Your task to perform on an android device: toggle notification dots Image 0: 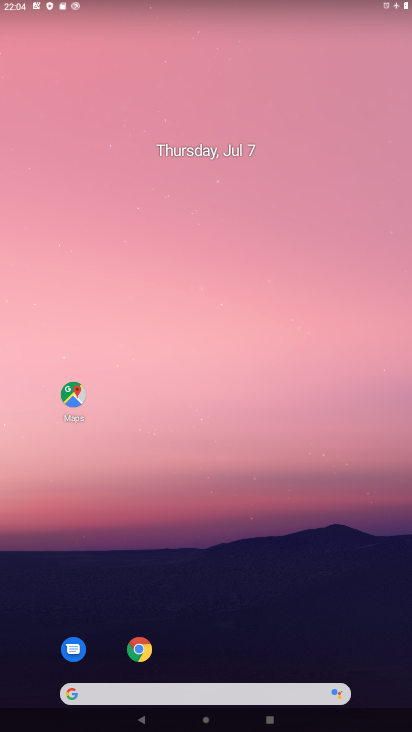
Step 0: drag from (226, 720) to (226, 241)
Your task to perform on an android device: toggle notification dots Image 1: 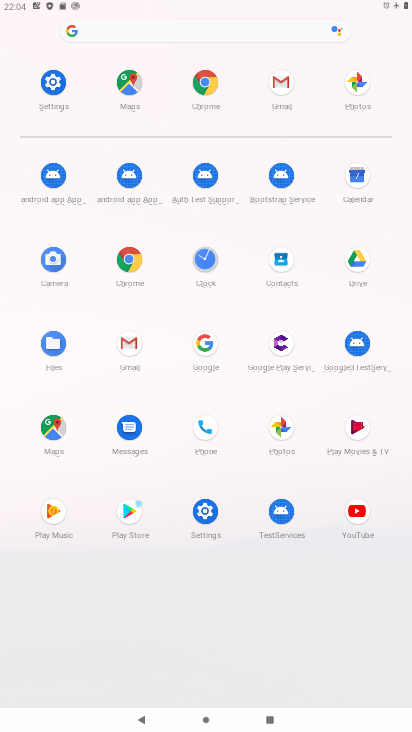
Step 1: click (54, 73)
Your task to perform on an android device: toggle notification dots Image 2: 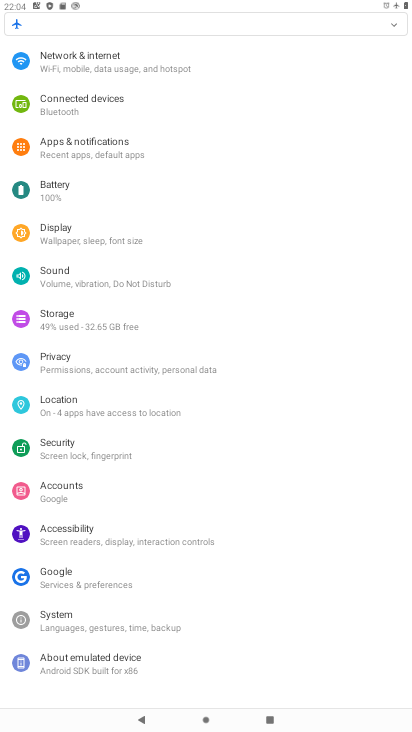
Step 2: click (80, 149)
Your task to perform on an android device: toggle notification dots Image 3: 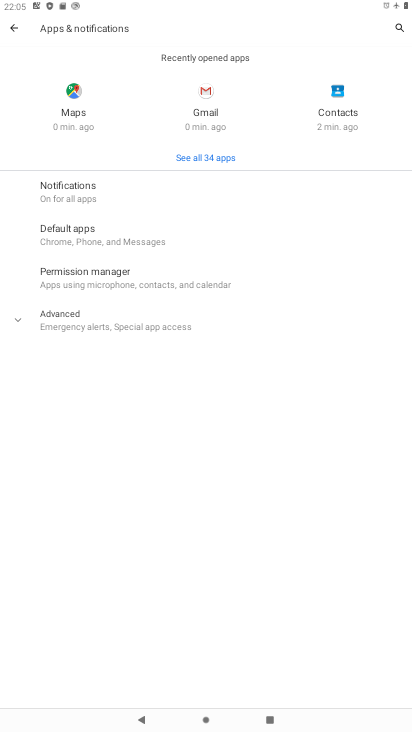
Step 3: click (70, 186)
Your task to perform on an android device: toggle notification dots Image 4: 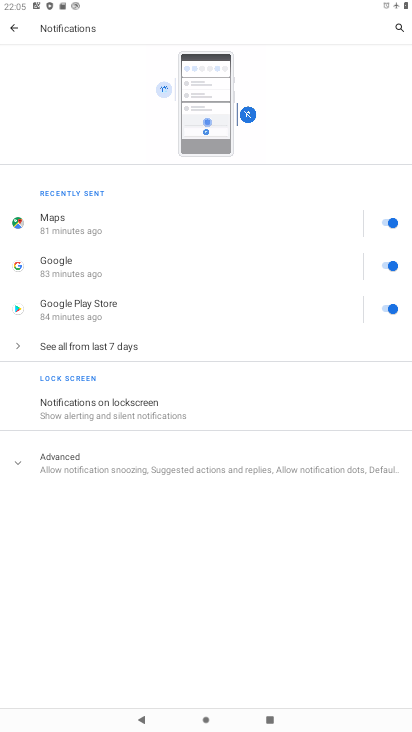
Step 4: click (162, 466)
Your task to perform on an android device: toggle notification dots Image 5: 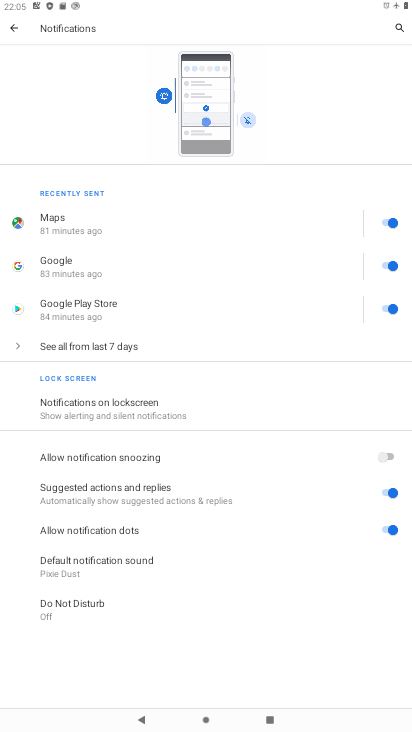
Step 5: click (390, 526)
Your task to perform on an android device: toggle notification dots Image 6: 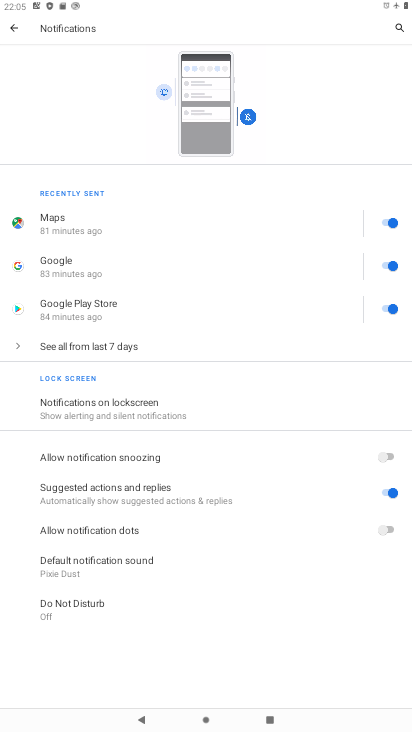
Step 6: task complete